Your task to perform on an android device: Check the weather Image 0: 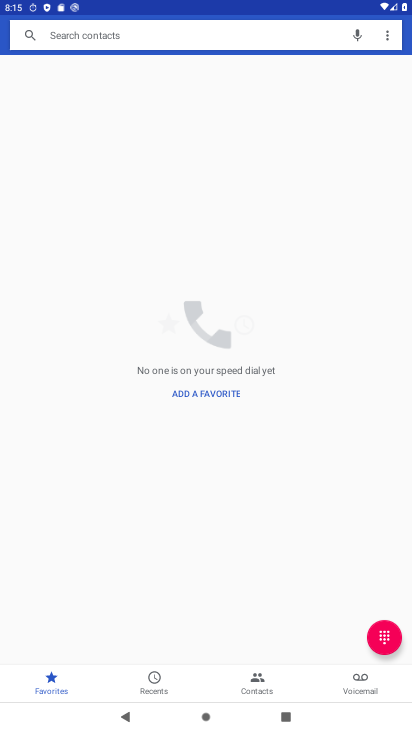
Step 0: press home button
Your task to perform on an android device: Check the weather Image 1: 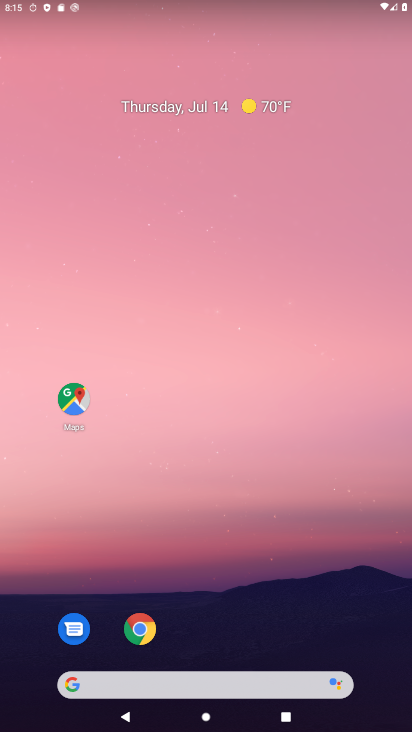
Step 1: drag from (252, 564) to (274, 8)
Your task to perform on an android device: Check the weather Image 2: 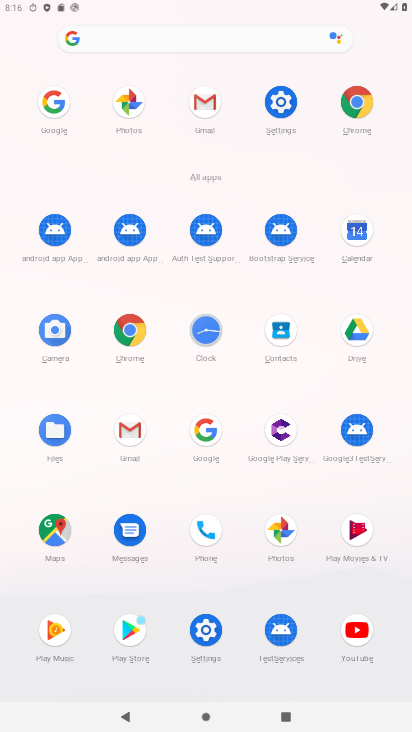
Step 2: click (202, 442)
Your task to perform on an android device: Check the weather Image 3: 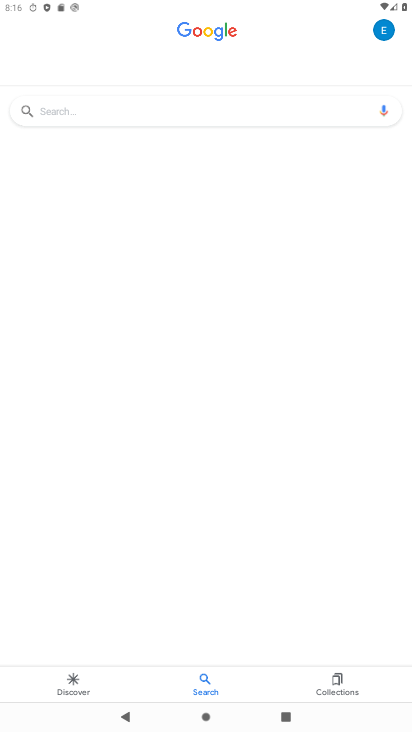
Step 3: click (132, 92)
Your task to perform on an android device: Check the weather Image 4: 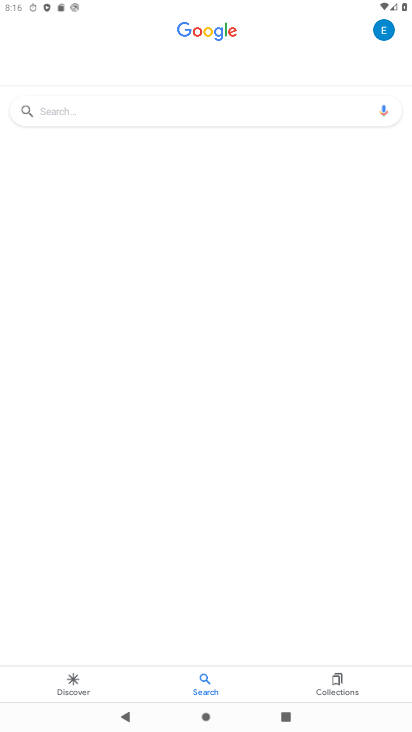
Step 4: click (124, 96)
Your task to perform on an android device: Check the weather Image 5: 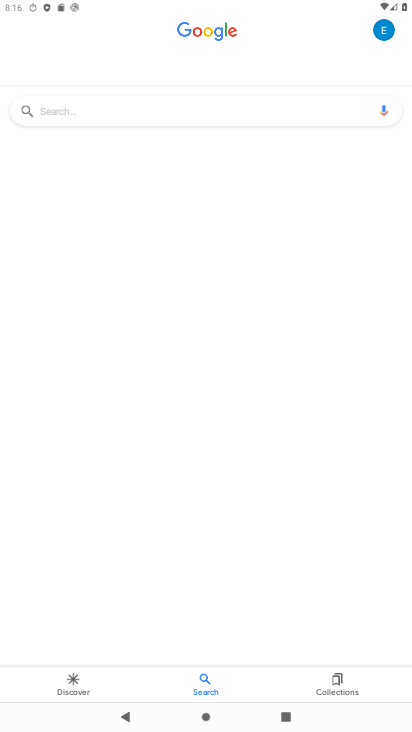
Step 5: click (111, 113)
Your task to perform on an android device: Check the weather Image 6: 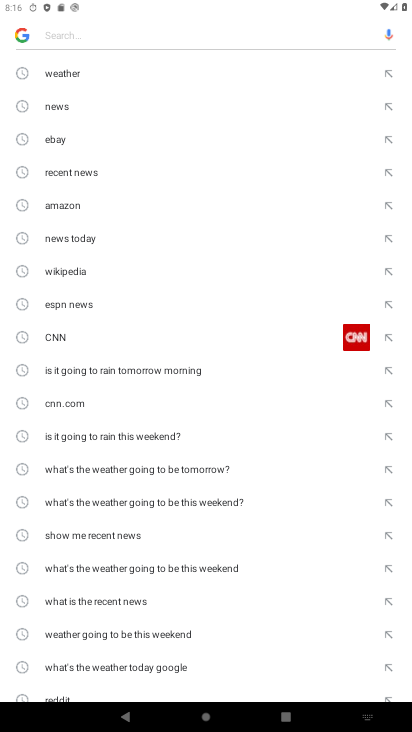
Step 6: click (72, 77)
Your task to perform on an android device: Check the weather Image 7: 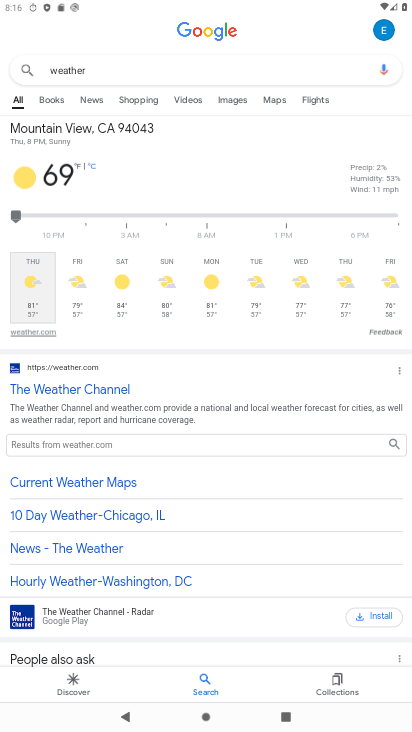
Step 7: task complete